Your task to perform on an android device: Go to Amazon Image 0: 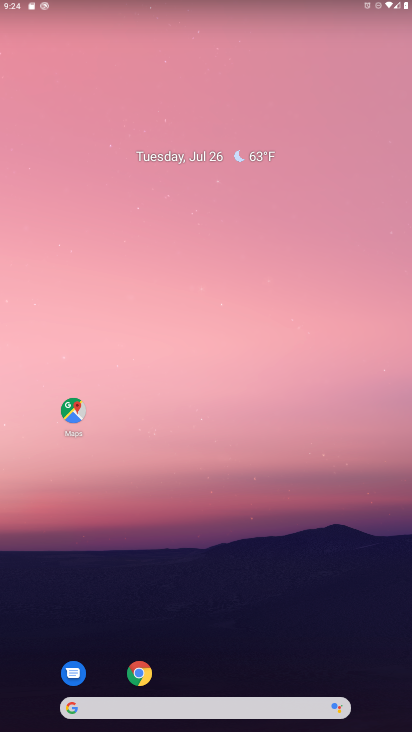
Step 0: drag from (346, 618) to (178, 39)
Your task to perform on an android device: Go to Amazon Image 1: 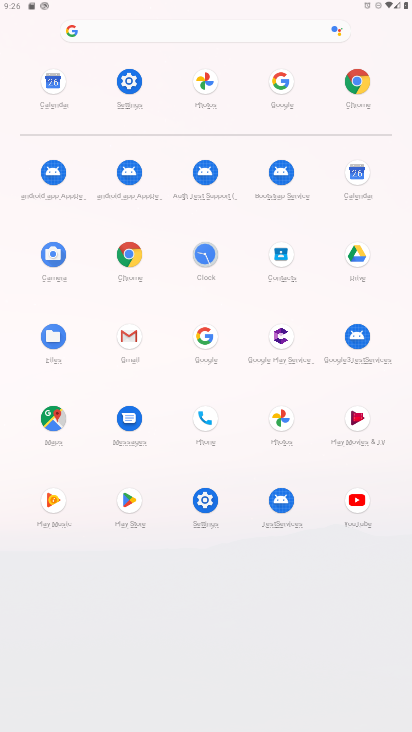
Step 1: click (209, 343)
Your task to perform on an android device: Go to Amazon Image 2: 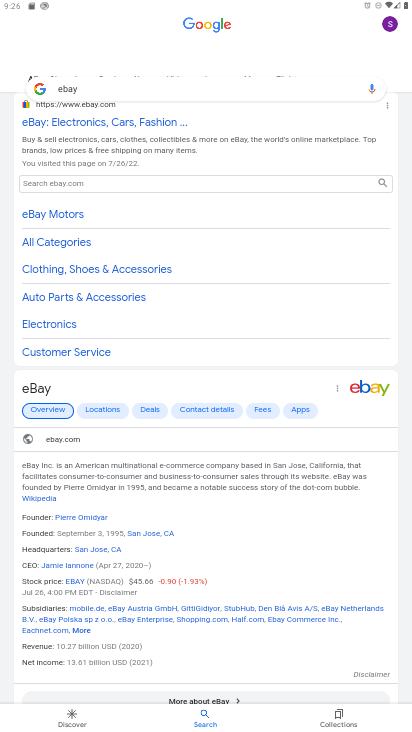
Step 2: press back button
Your task to perform on an android device: Go to Amazon Image 3: 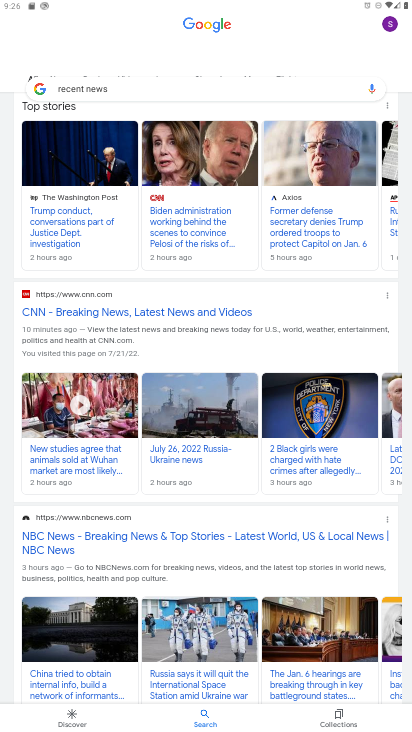
Step 3: press back button
Your task to perform on an android device: Go to Amazon Image 4: 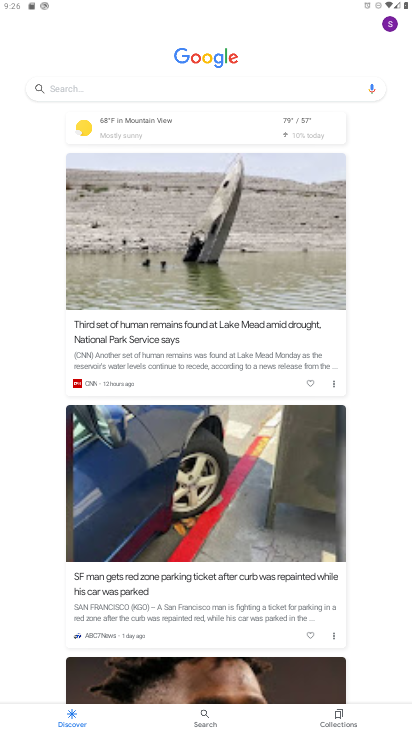
Step 4: click (103, 92)
Your task to perform on an android device: Go to Amazon Image 5: 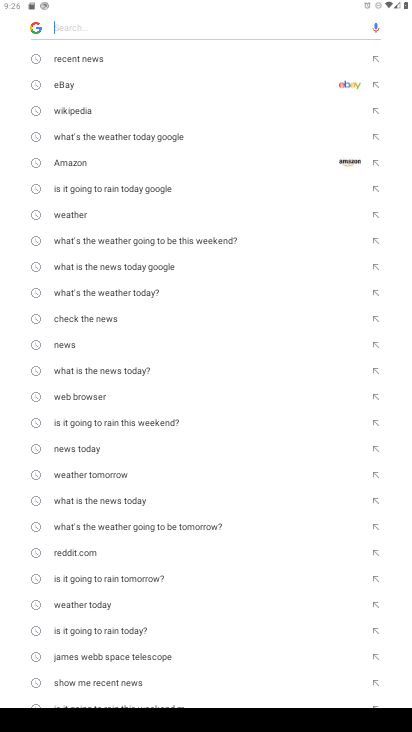
Step 5: click (89, 164)
Your task to perform on an android device: Go to Amazon Image 6: 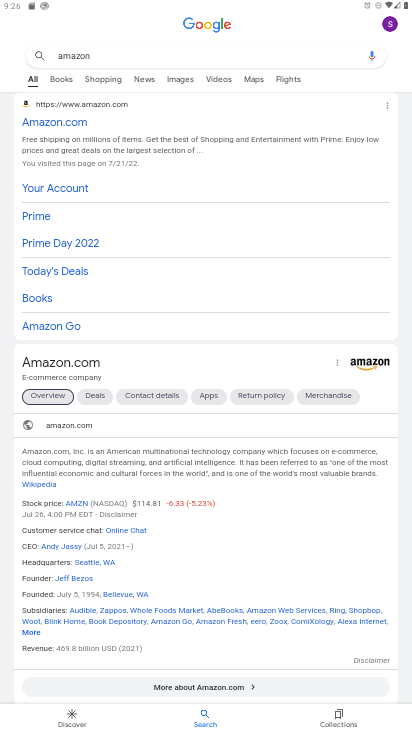
Step 6: task complete